Your task to perform on an android device: Go to sound settings Image 0: 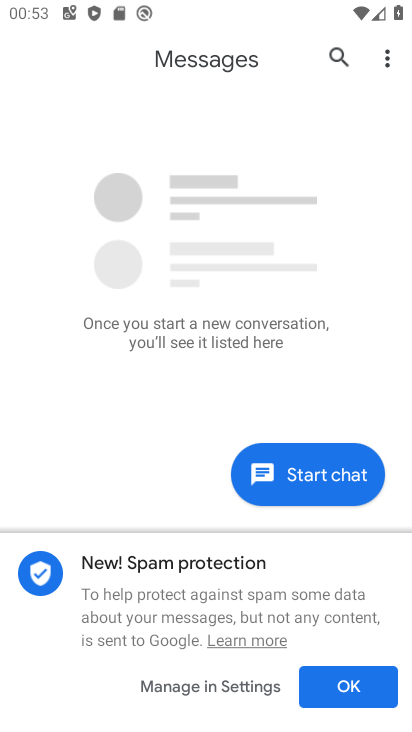
Step 0: press back button
Your task to perform on an android device: Go to sound settings Image 1: 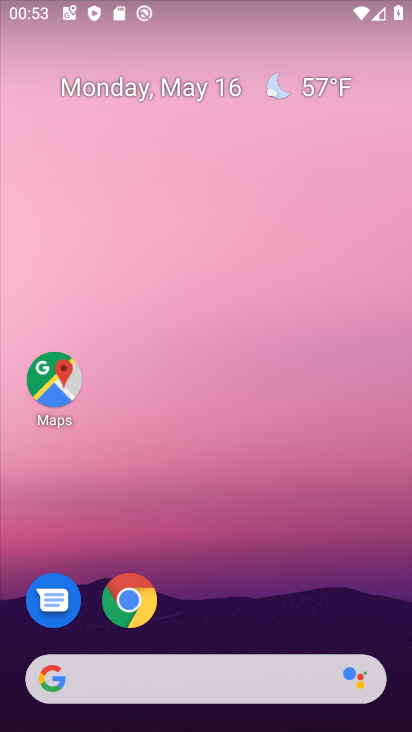
Step 1: drag from (228, 650) to (337, 44)
Your task to perform on an android device: Go to sound settings Image 2: 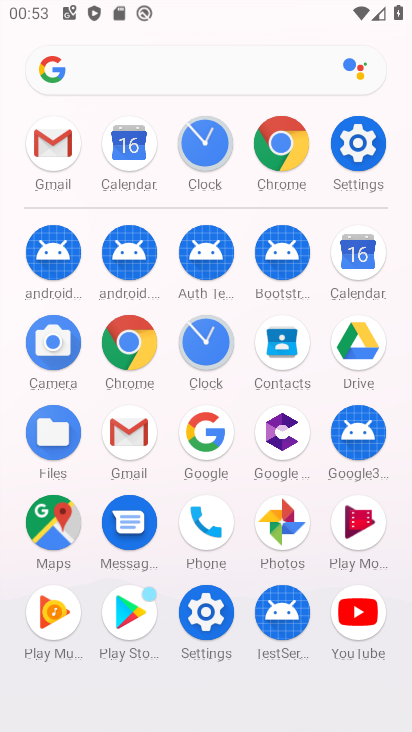
Step 2: click (347, 150)
Your task to perform on an android device: Go to sound settings Image 3: 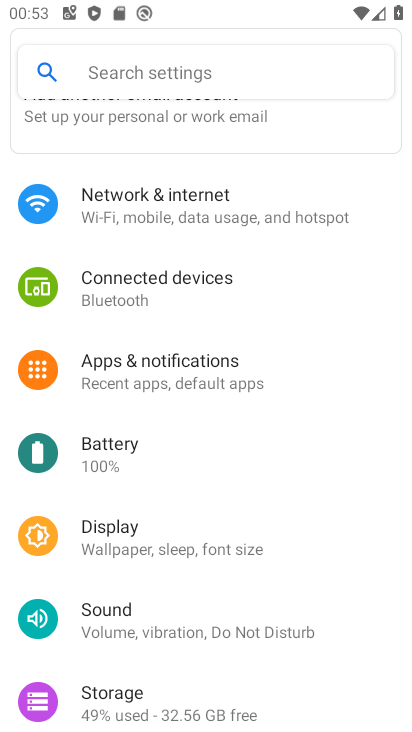
Step 3: click (146, 626)
Your task to perform on an android device: Go to sound settings Image 4: 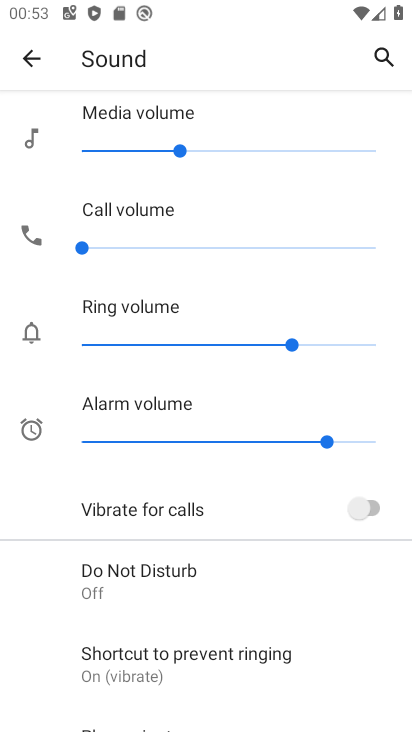
Step 4: task complete